Your task to perform on an android device: change the clock display to analog Image 0: 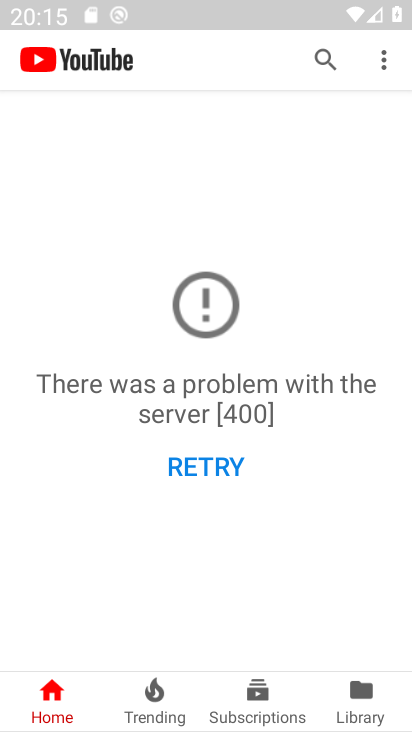
Step 0: press home button
Your task to perform on an android device: change the clock display to analog Image 1: 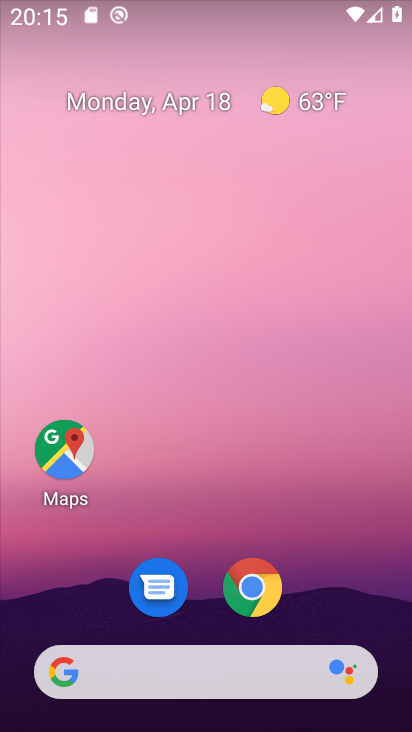
Step 1: drag from (314, 584) to (308, 272)
Your task to perform on an android device: change the clock display to analog Image 2: 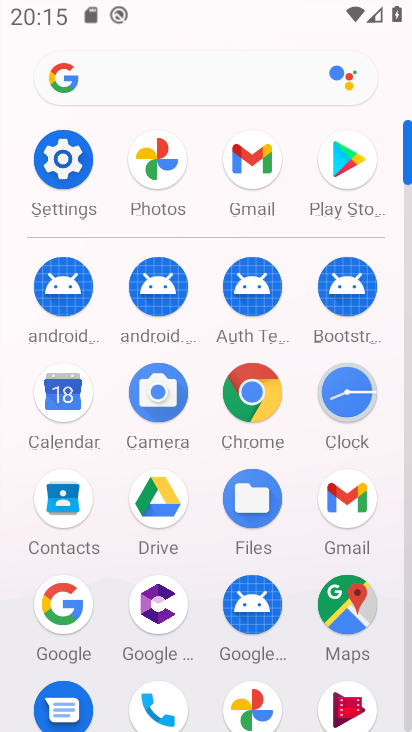
Step 2: click (355, 429)
Your task to perform on an android device: change the clock display to analog Image 3: 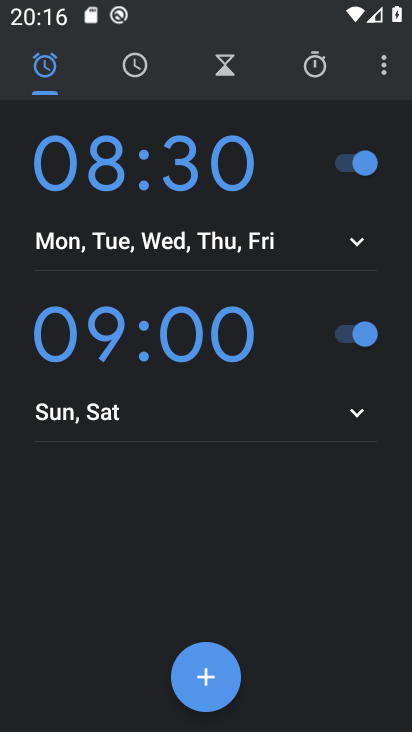
Step 3: click (395, 66)
Your task to perform on an android device: change the clock display to analog Image 4: 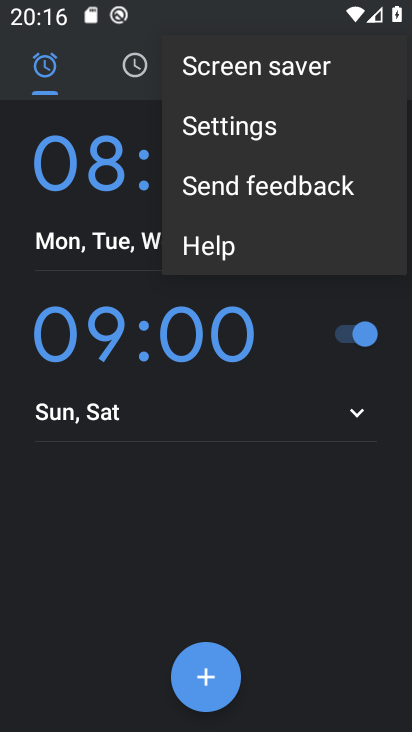
Step 4: click (323, 130)
Your task to perform on an android device: change the clock display to analog Image 5: 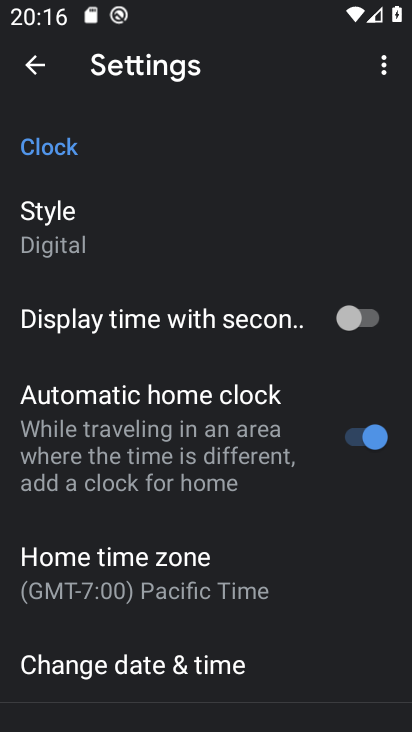
Step 5: click (147, 227)
Your task to perform on an android device: change the clock display to analog Image 6: 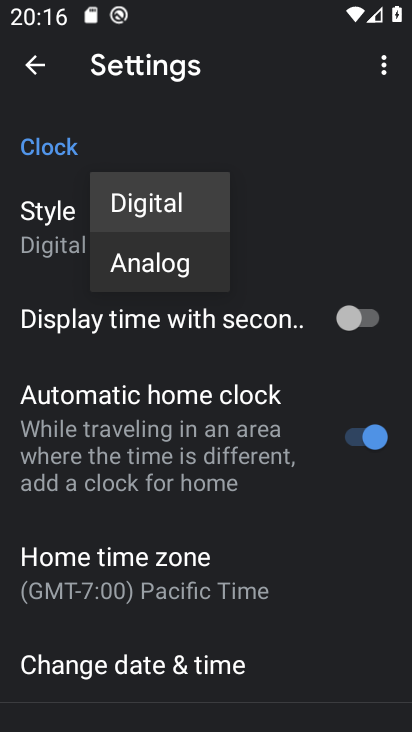
Step 6: click (180, 255)
Your task to perform on an android device: change the clock display to analog Image 7: 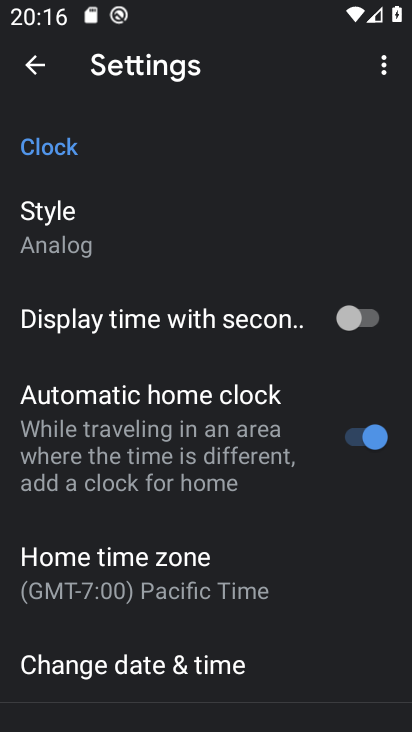
Step 7: task complete